Your task to perform on an android device: What's on my calendar today? Image 0: 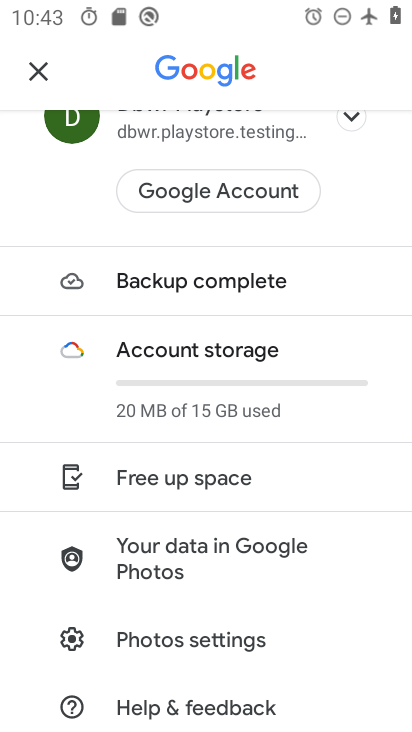
Step 0: press home button
Your task to perform on an android device: What's on my calendar today? Image 1: 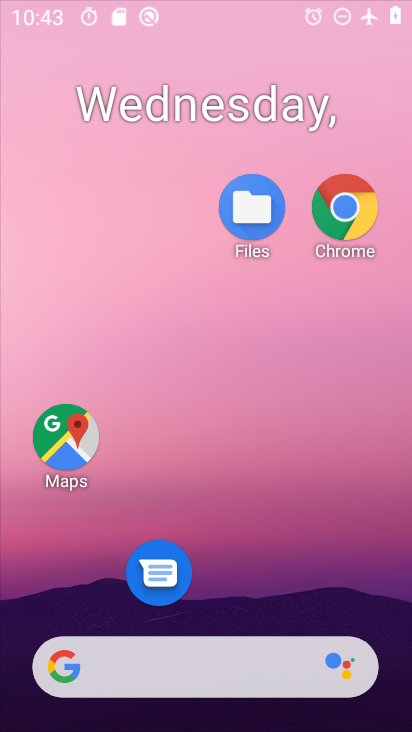
Step 1: drag from (208, 643) to (287, 162)
Your task to perform on an android device: What's on my calendar today? Image 2: 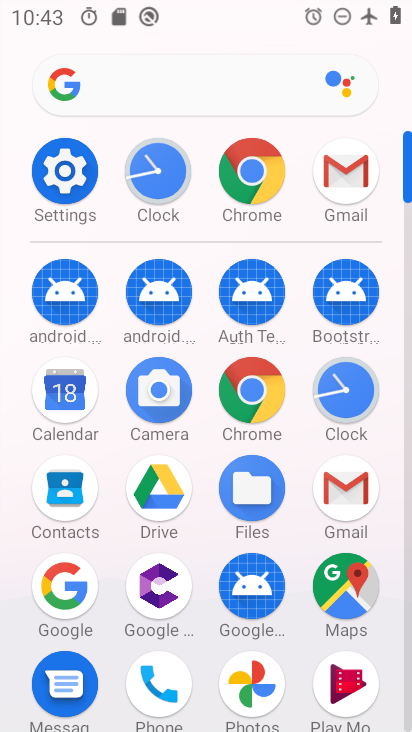
Step 2: drag from (230, 575) to (308, 353)
Your task to perform on an android device: What's on my calendar today? Image 3: 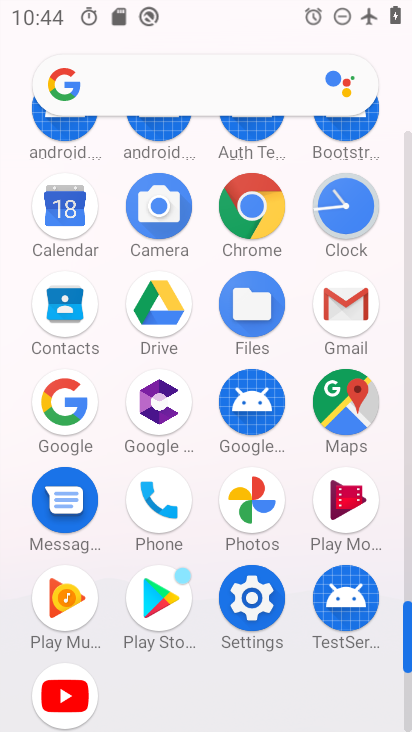
Step 3: click (52, 232)
Your task to perform on an android device: What's on my calendar today? Image 4: 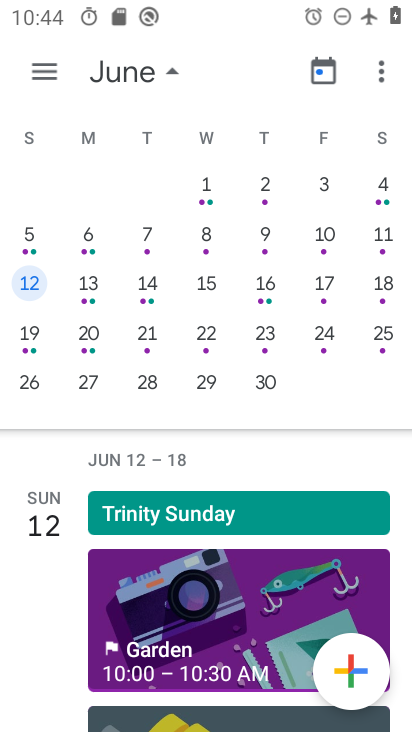
Step 4: drag from (54, 321) to (404, 391)
Your task to perform on an android device: What's on my calendar today? Image 5: 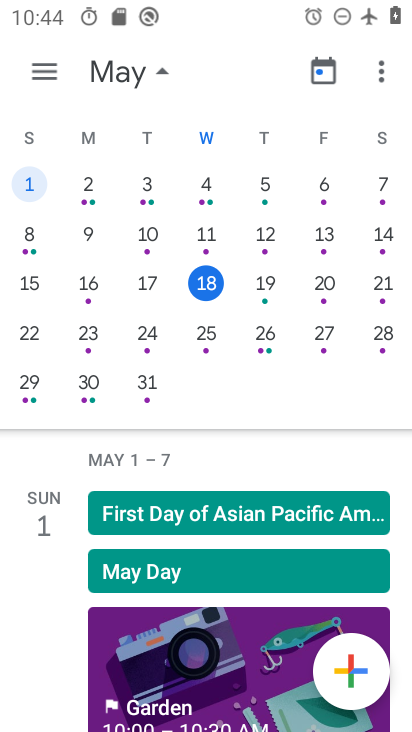
Step 5: click (207, 284)
Your task to perform on an android device: What's on my calendar today? Image 6: 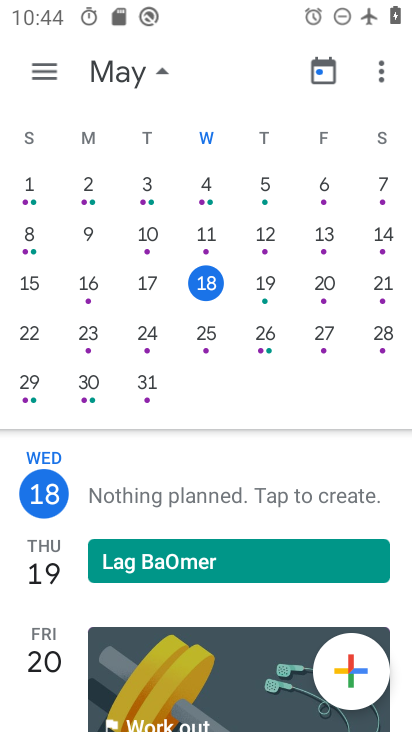
Step 6: press home button
Your task to perform on an android device: What's on my calendar today? Image 7: 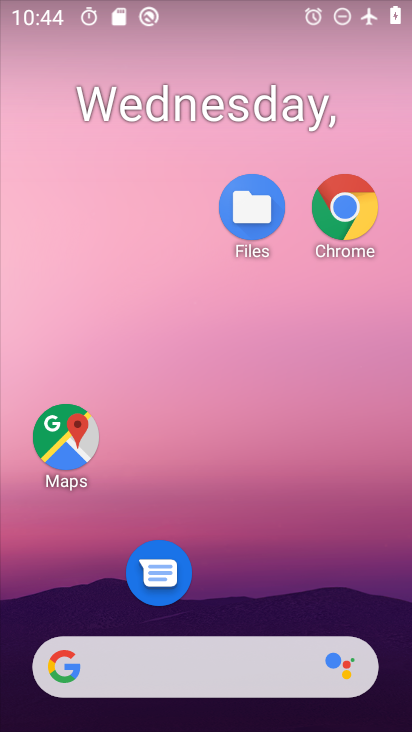
Step 7: drag from (243, 674) to (373, 81)
Your task to perform on an android device: What's on my calendar today? Image 8: 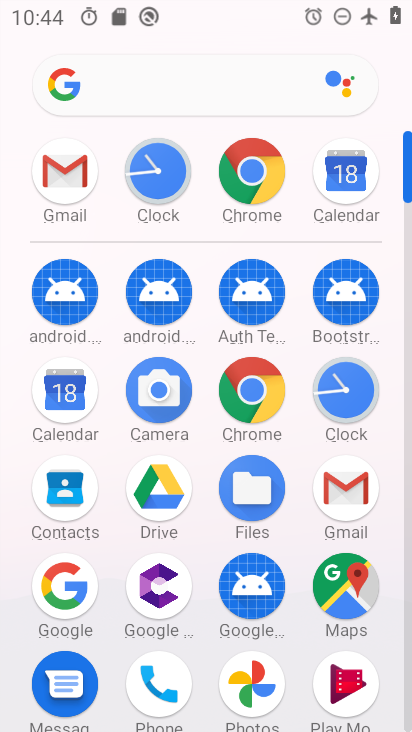
Step 8: drag from (320, 332) to (331, 291)
Your task to perform on an android device: What's on my calendar today? Image 9: 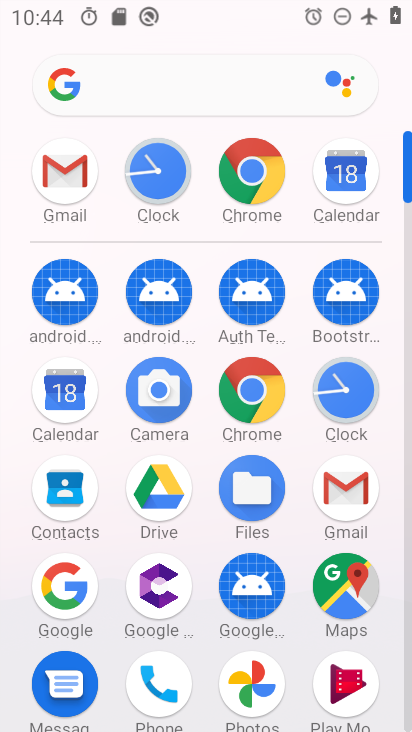
Step 9: drag from (182, 575) to (243, 209)
Your task to perform on an android device: What's on my calendar today? Image 10: 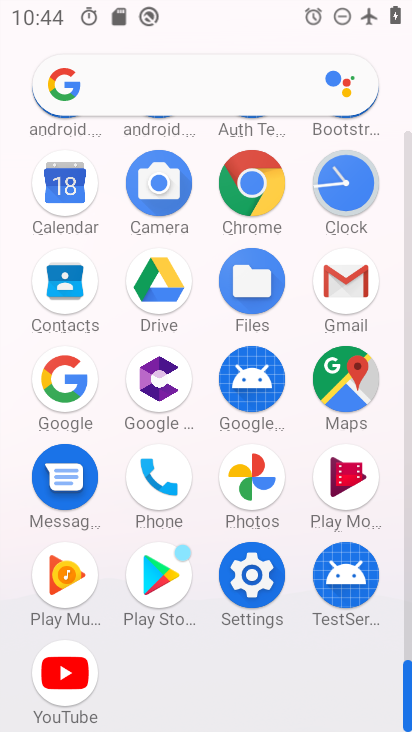
Step 10: click (76, 217)
Your task to perform on an android device: What's on my calendar today? Image 11: 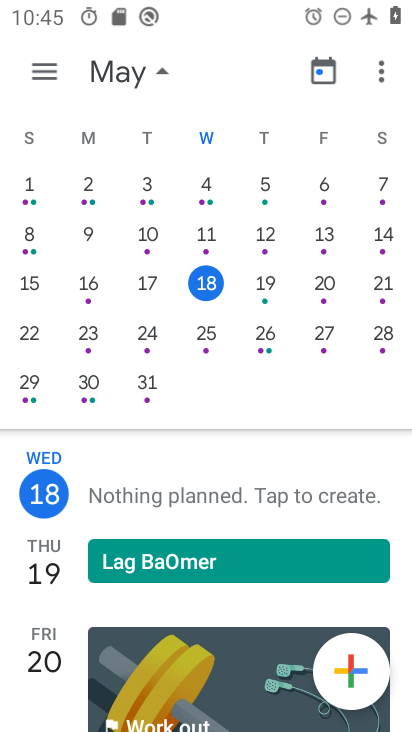
Step 11: task complete